Your task to perform on an android device: change the clock style Image 0: 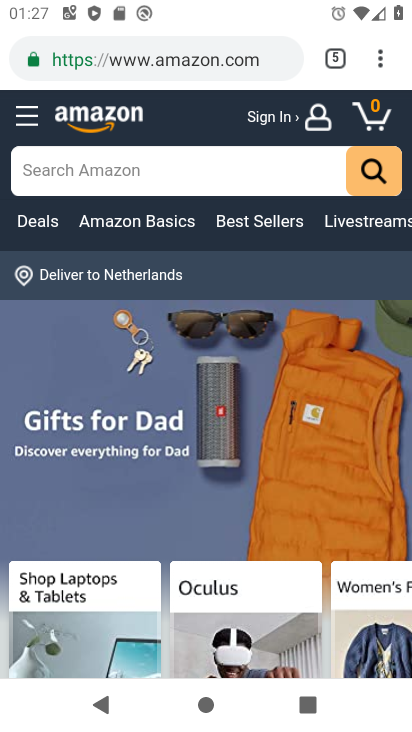
Step 0: press home button
Your task to perform on an android device: change the clock style Image 1: 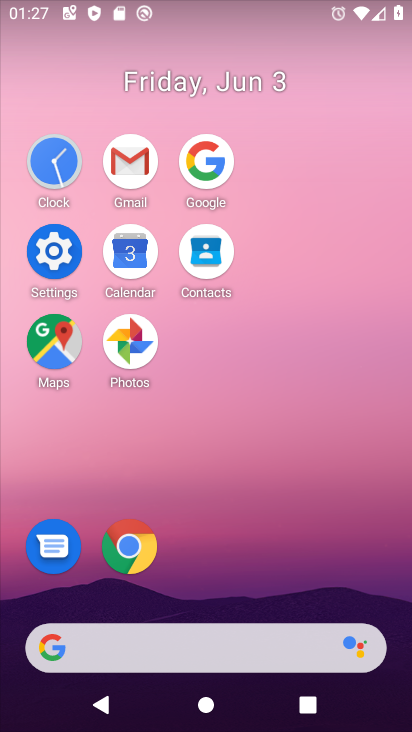
Step 1: click (58, 167)
Your task to perform on an android device: change the clock style Image 2: 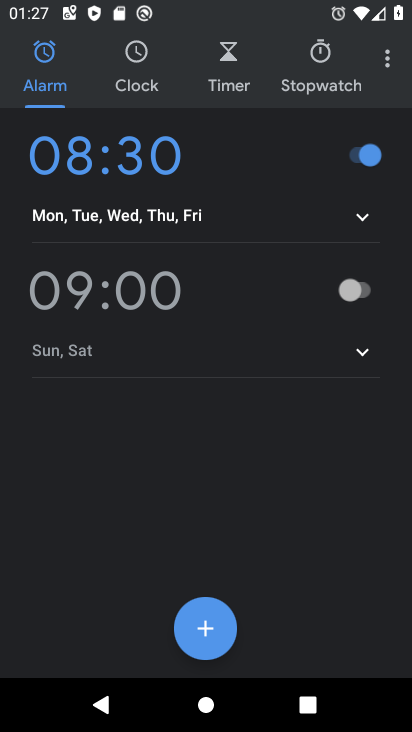
Step 2: click (383, 56)
Your task to perform on an android device: change the clock style Image 3: 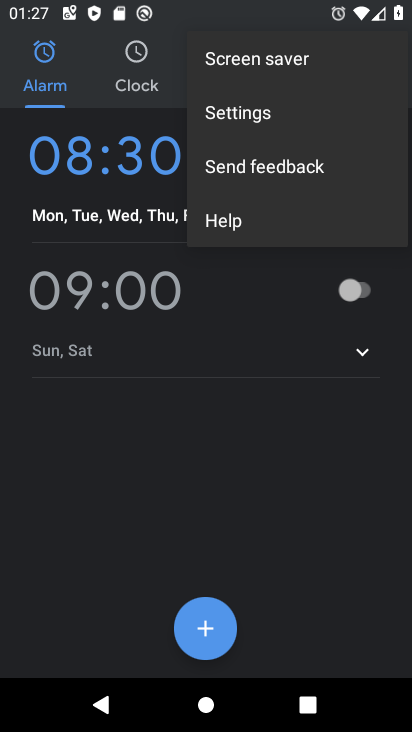
Step 3: click (278, 114)
Your task to perform on an android device: change the clock style Image 4: 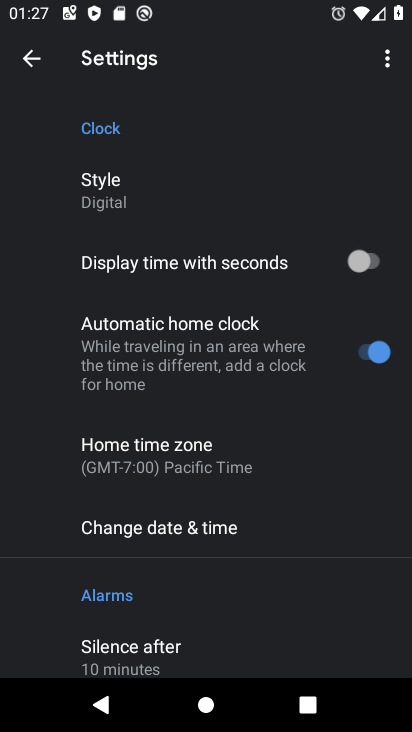
Step 4: click (130, 185)
Your task to perform on an android device: change the clock style Image 5: 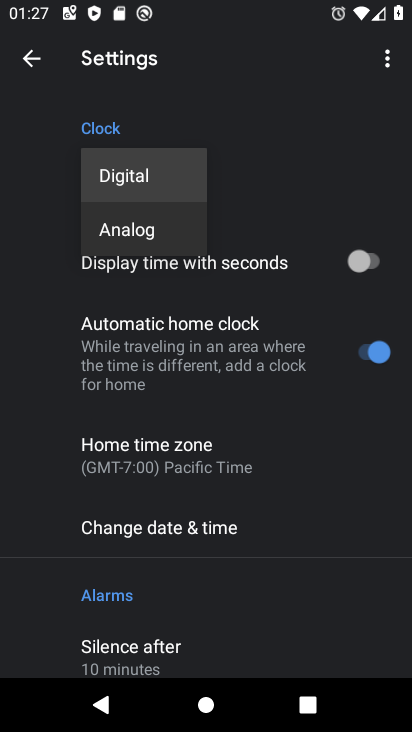
Step 5: click (151, 236)
Your task to perform on an android device: change the clock style Image 6: 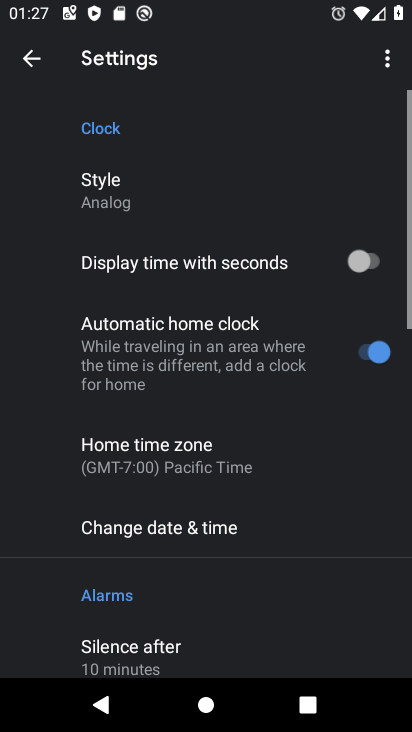
Step 6: task complete